Your task to perform on an android device: turn on notifications settings in the gmail app Image 0: 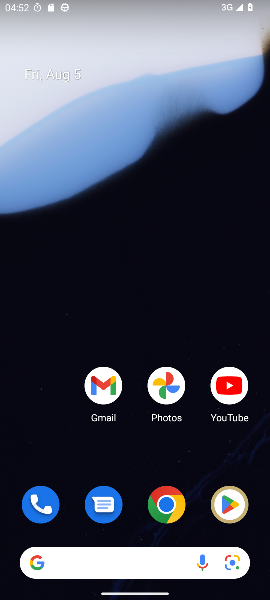
Step 0: click (89, 388)
Your task to perform on an android device: turn on notifications settings in the gmail app Image 1: 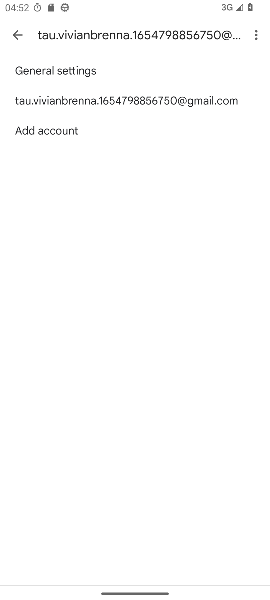
Step 1: click (17, 36)
Your task to perform on an android device: turn on notifications settings in the gmail app Image 2: 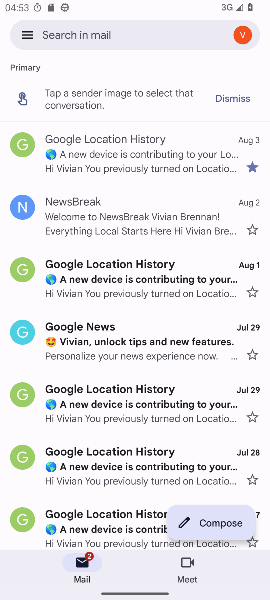
Step 2: click (36, 29)
Your task to perform on an android device: turn on notifications settings in the gmail app Image 3: 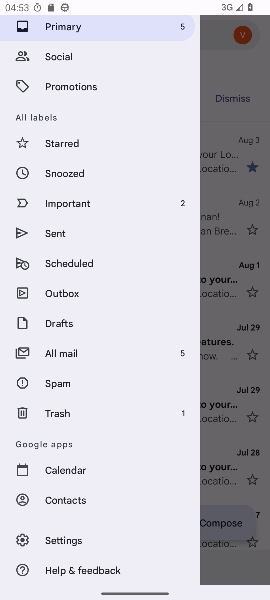
Step 3: click (67, 536)
Your task to perform on an android device: turn on notifications settings in the gmail app Image 4: 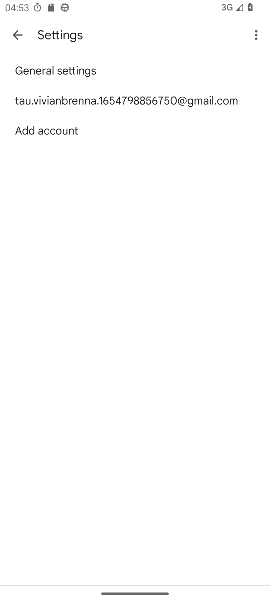
Step 4: click (77, 64)
Your task to perform on an android device: turn on notifications settings in the gmail app Image 5: 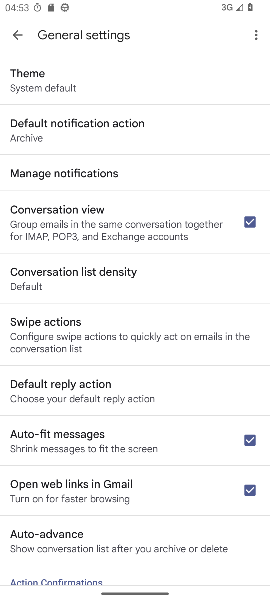
Step 5: drag from (168, 477) to (181, 322)
Your task to perform on an android device: turn on notifications settings in the gmail app Image 6: 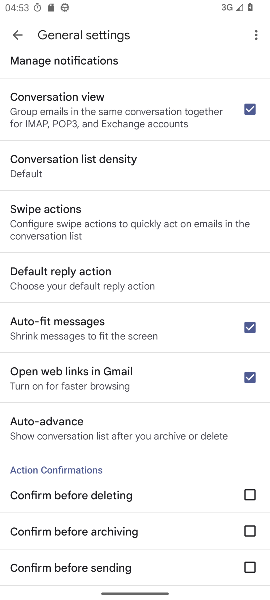
Step 6: drag from (144, 400) to (166, 93)
Your task to perform on an android device: turn on notifications settings in the gmail app Image 7: 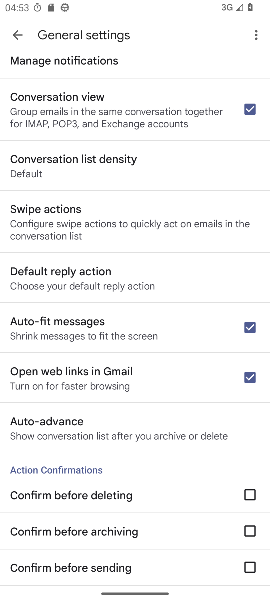
Step 7: drag from (171, 73) to (70, 577)
Your task to perform on an android device: turn on notifications settings in the gmail app Image 8: 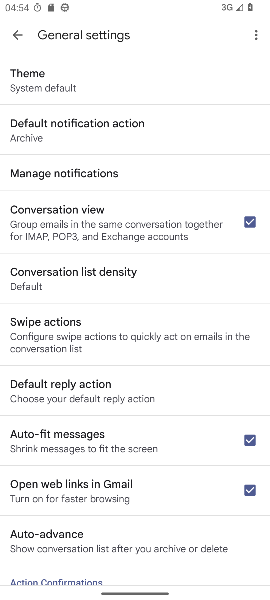
Step 8: click (84, 174)
Your task to perform on an android device: turn on notifications settings in the gmail app Image 9: 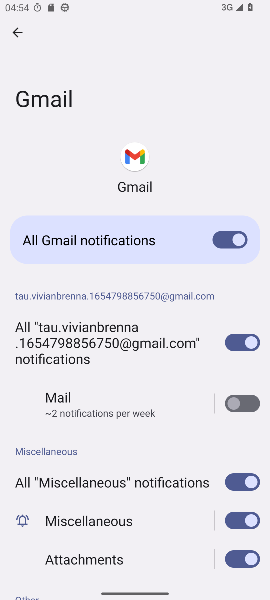
Step 9: click (227, 237)
Your task to perform on an android device: turn on notifications settings in the gmail app Image 10: 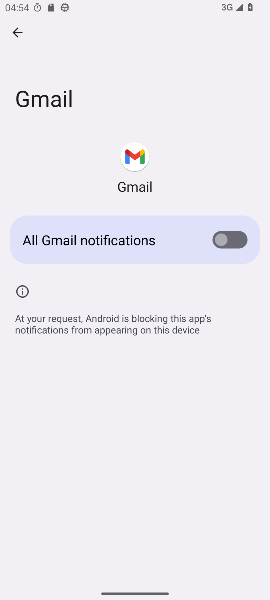
Step 10: task complete